Your task to perform on an android device: Clear the shopping cart on target. Image 0: 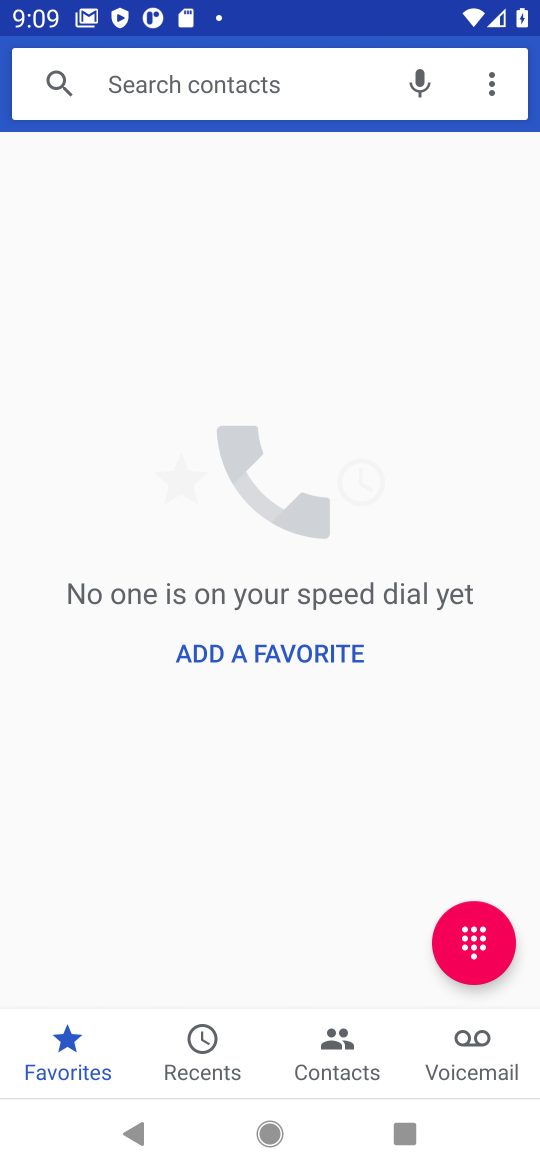
Step 0: press home button
Your task to perform on an android device: Clear the shopping cart on target. Image 1: 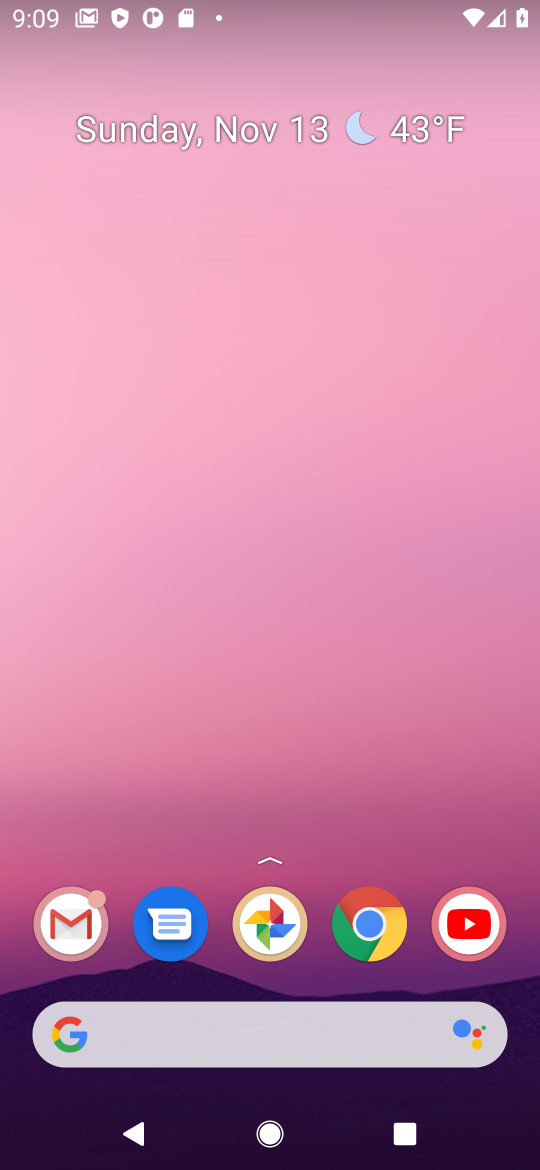
Step 1: click (349, 909)
Your task to perform on an android device: Clear the shopping cart on target. Image 2: 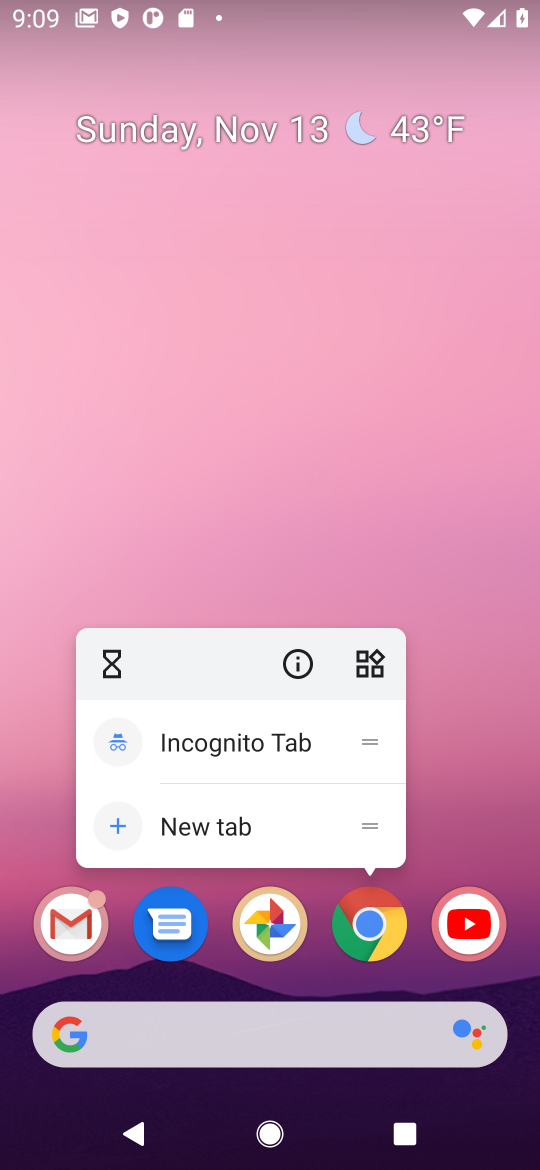
Step 2: click (376, 925)
Your task to perform on an android device: Clear the shopping cart on target. Image 3: 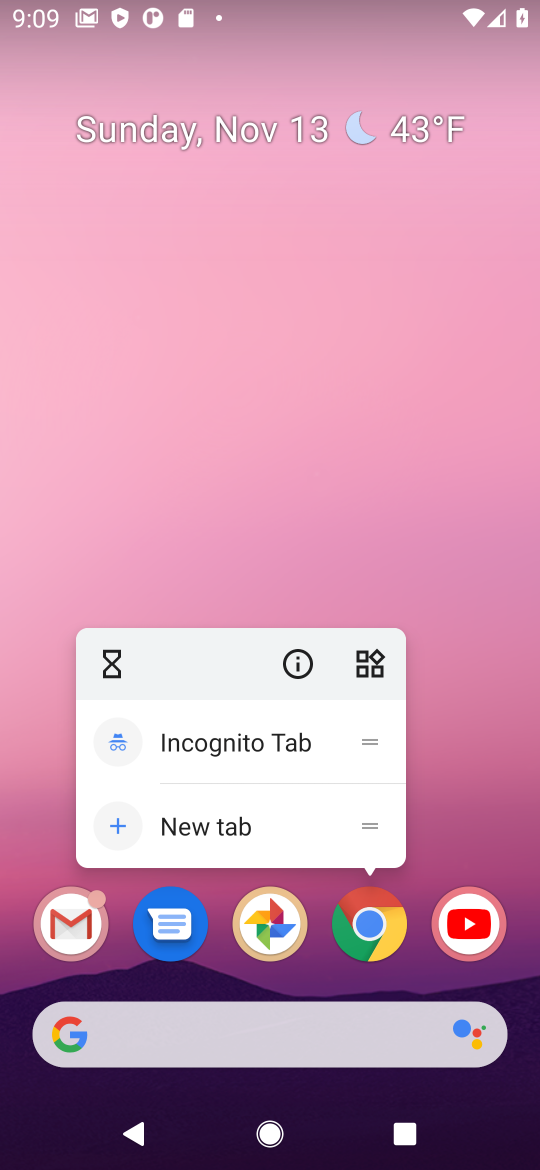
Step 3: click (370, 926)
Your task to perform on an android device: Clear the shopping cart on target. Image 4: 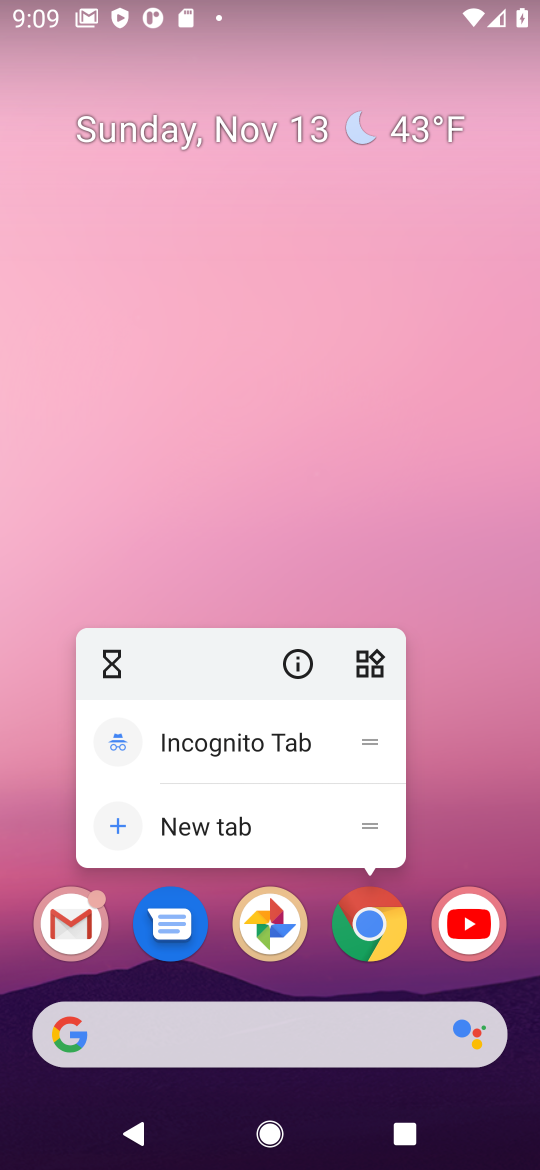
Step 4: click (370, 929)
Your task to perform on an android device: Clear the shopping cart on target. Image 5: 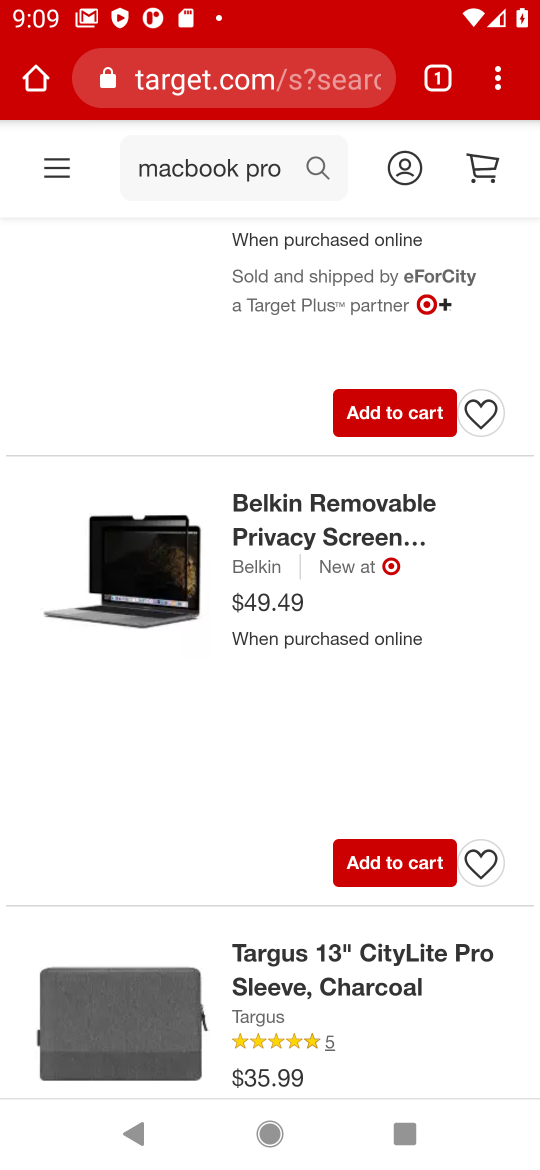
Step 5: click (475, 167)
Your task to perform on an android device: Clear the shopping cart on target. Image 6: 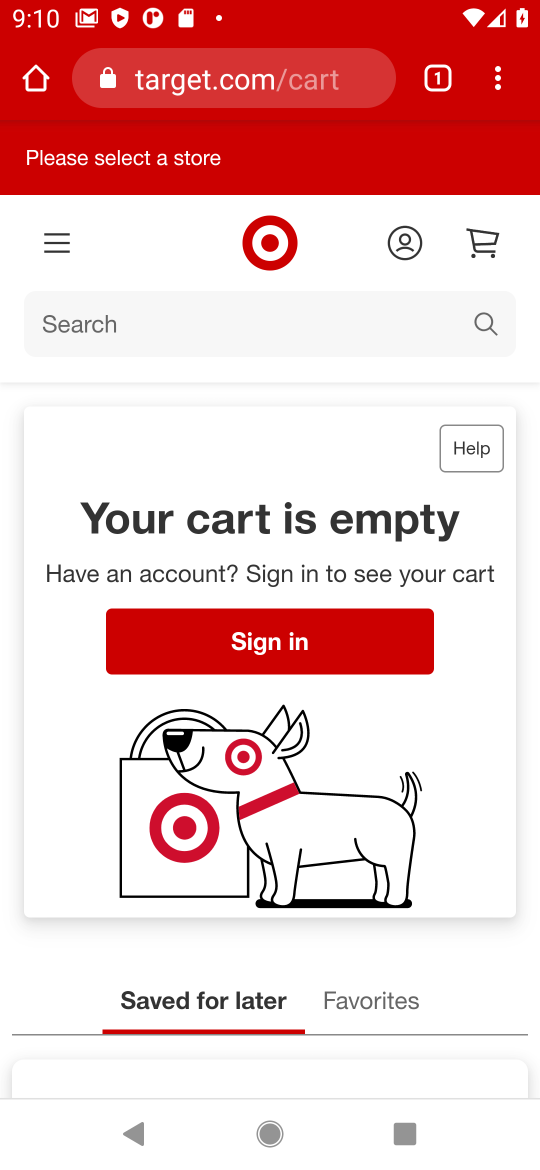
Step 6: task complete